Your task to perform on an android device: move a message to another label in the gmail app Image 0: 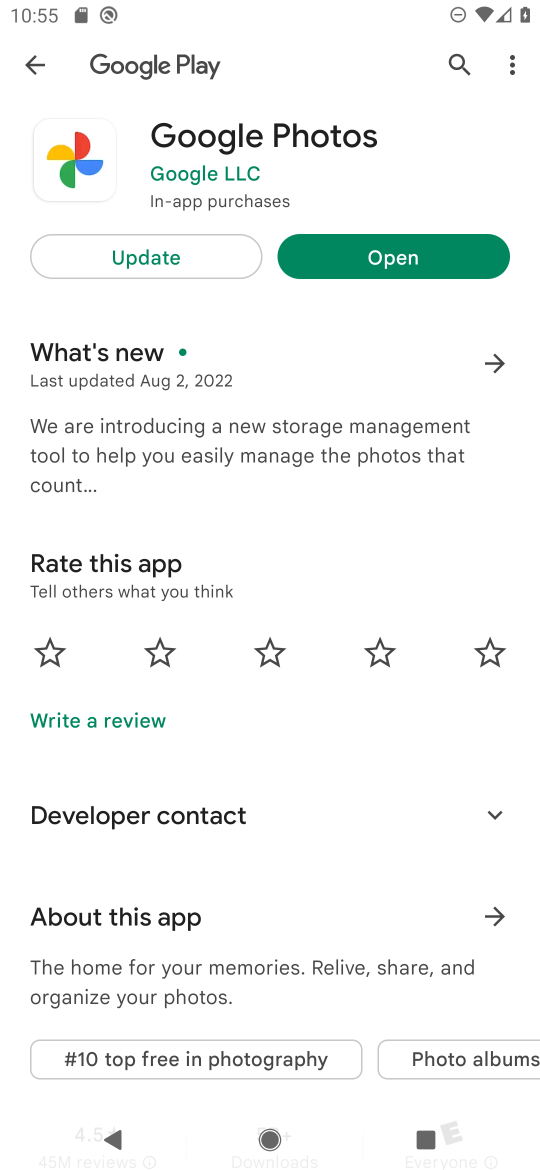
Step 0: press home button
Your task to perform on an android device: move a message to another label in the gmail app Image 1: 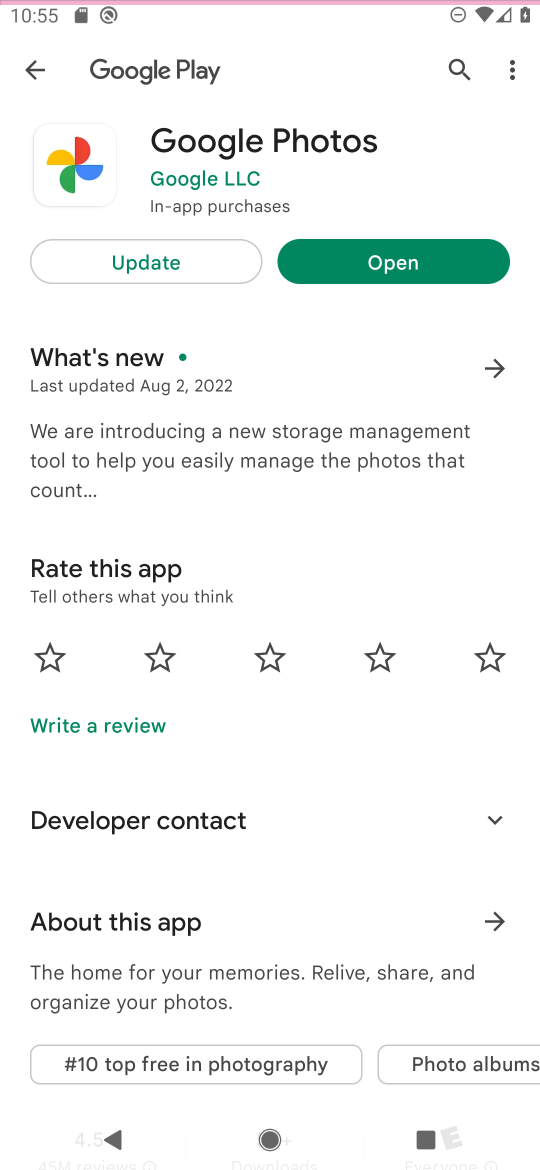
Step 1: press home button
Your task to perform on an android device: move a message to another label in the gmail app Image 2: 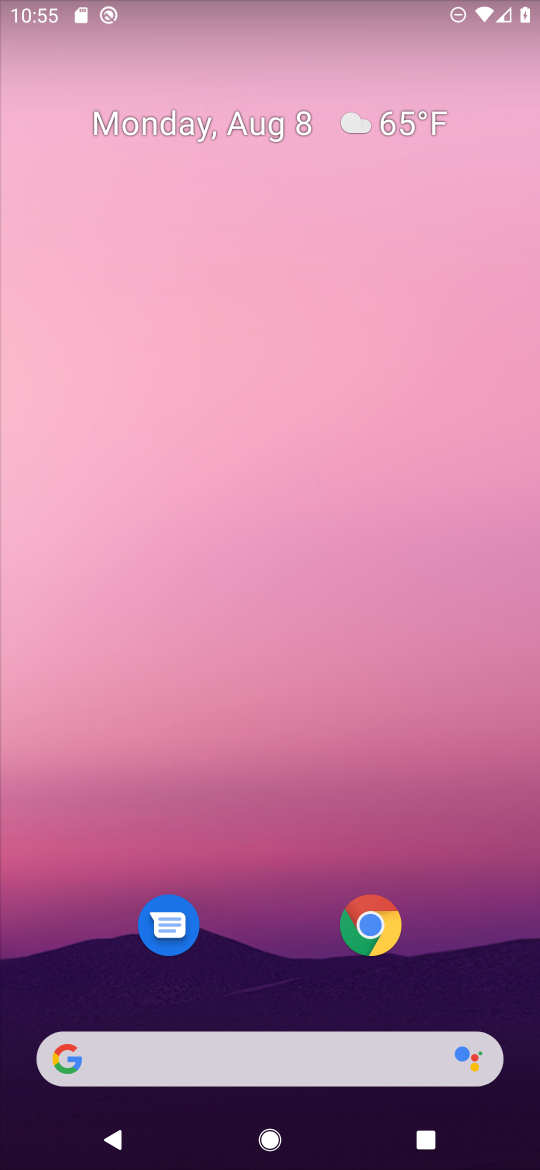
Step 2: drag from (323, 864) to (539, 170)
Your task to perform on an android device: move a message to another label in the gmail app Image 3: 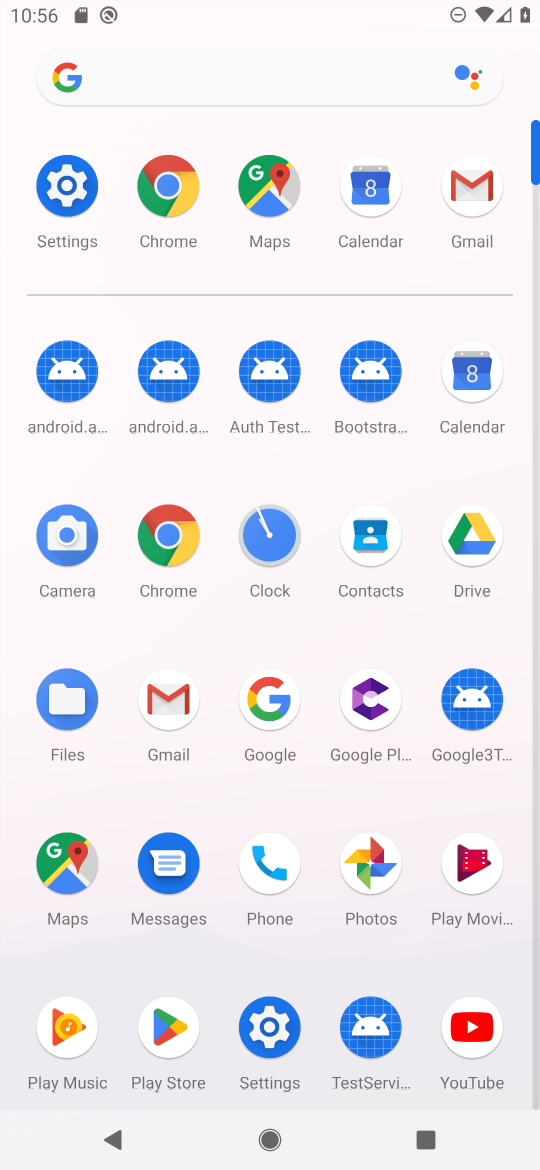
Step 3: click (156, 692)
Your task to perform on an android device: move a message to another label in the gmail app Image 4: 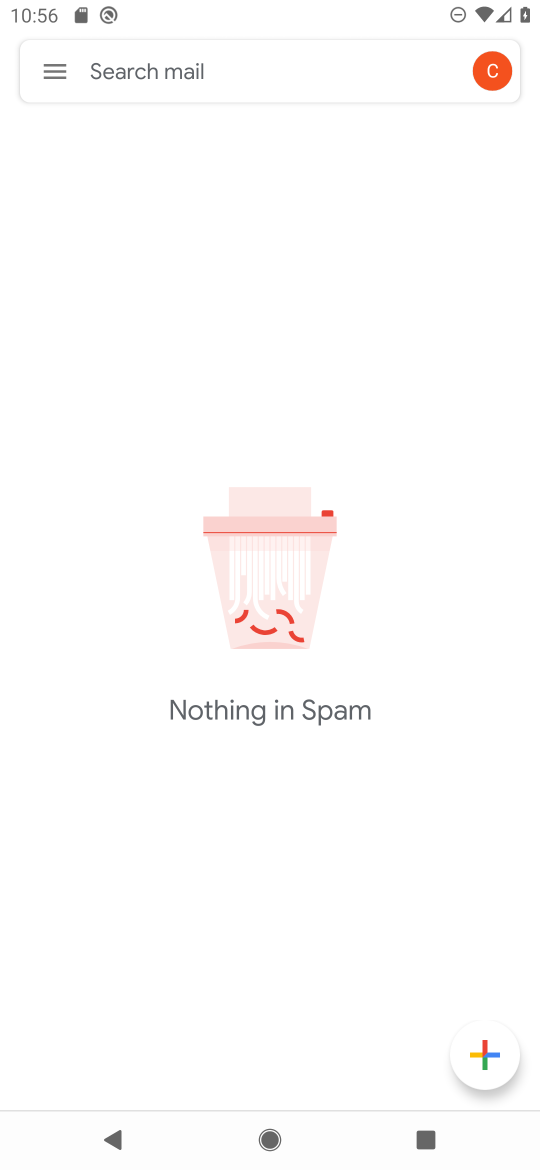
Step 4: click (52, 65)
Your task to perform on an android device: move a message to another label in the gmail app Image 5: 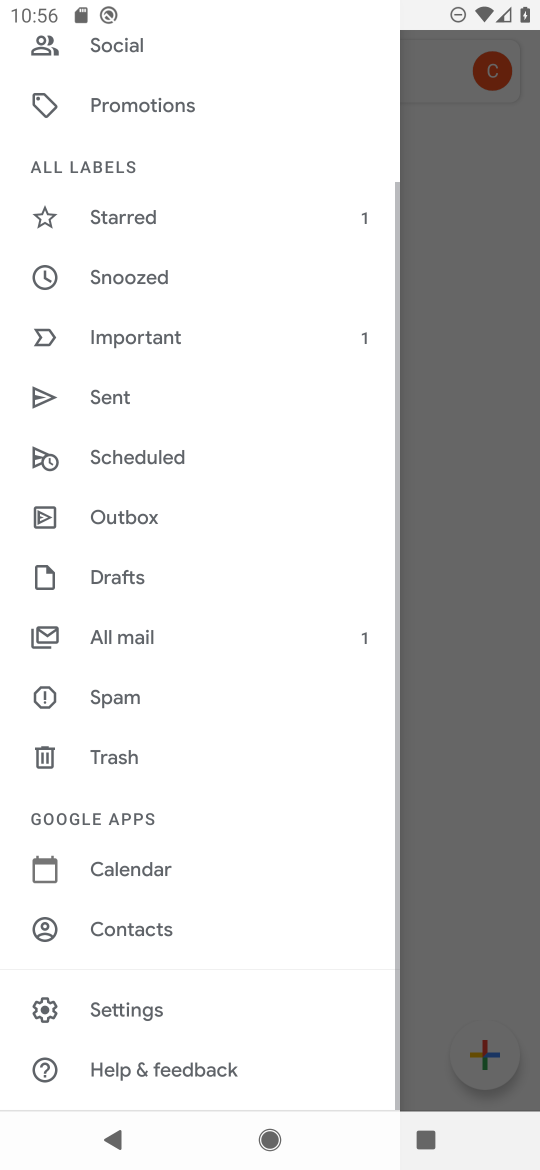
Step 5: drag from (171, 225) to (189, 832)
Your task to perform on an android device: move a message to another label in the gmail app Image 6: 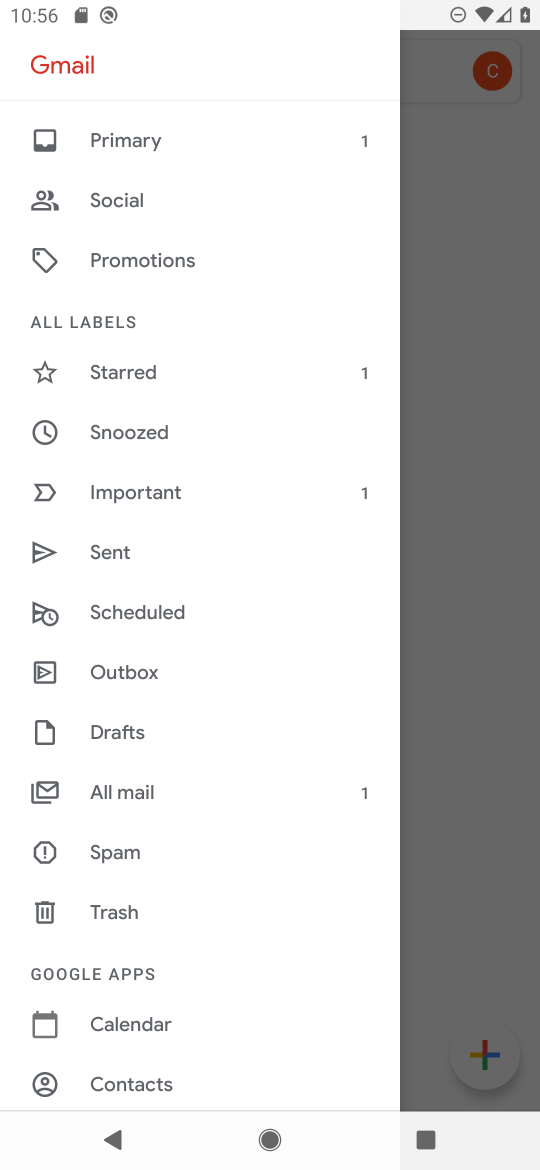
Step 6: click (122, 796)
Your task to perform on an android device: move a message to another label in the gmail app Image 7: 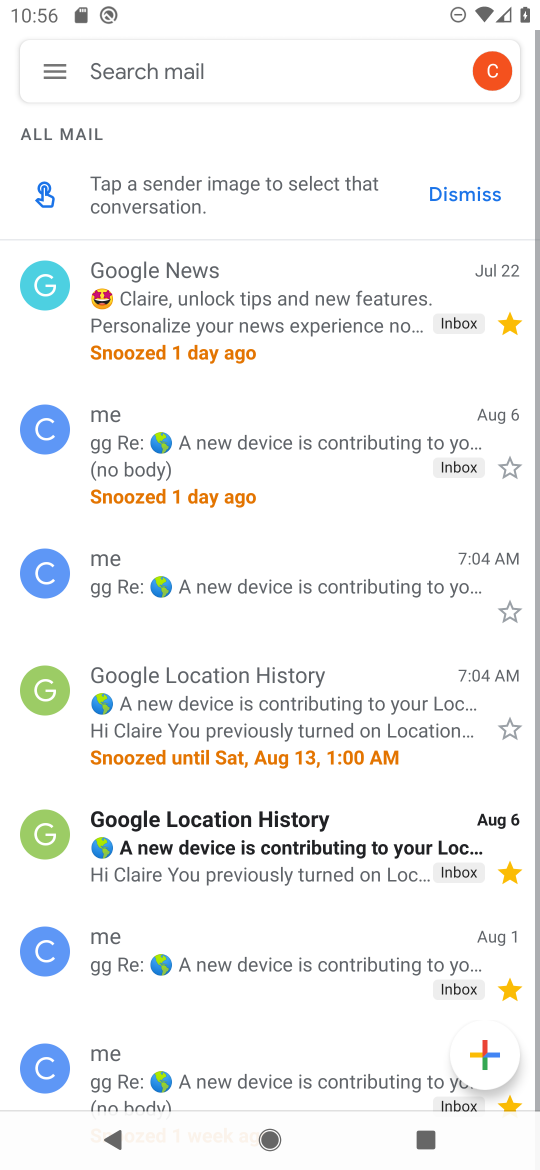
Step 7: click (358, 431)
Your task to perform on an android device: move a message to another label in the gmail app Image 8: 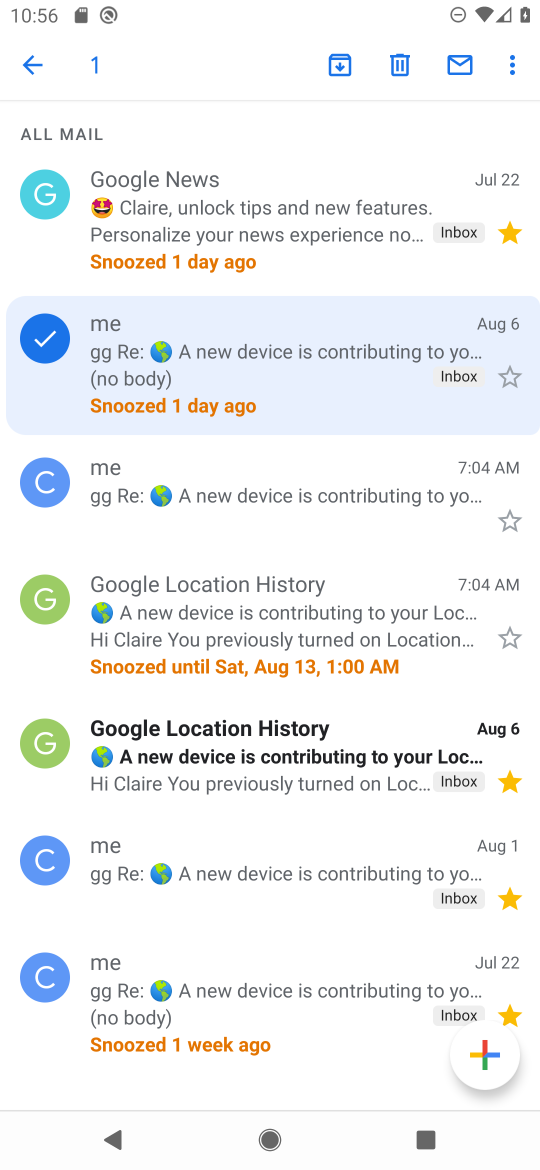
Step 8: click (519, 62)
Your task to perform on an android device: move a message to another label in the gmail app Image 9: 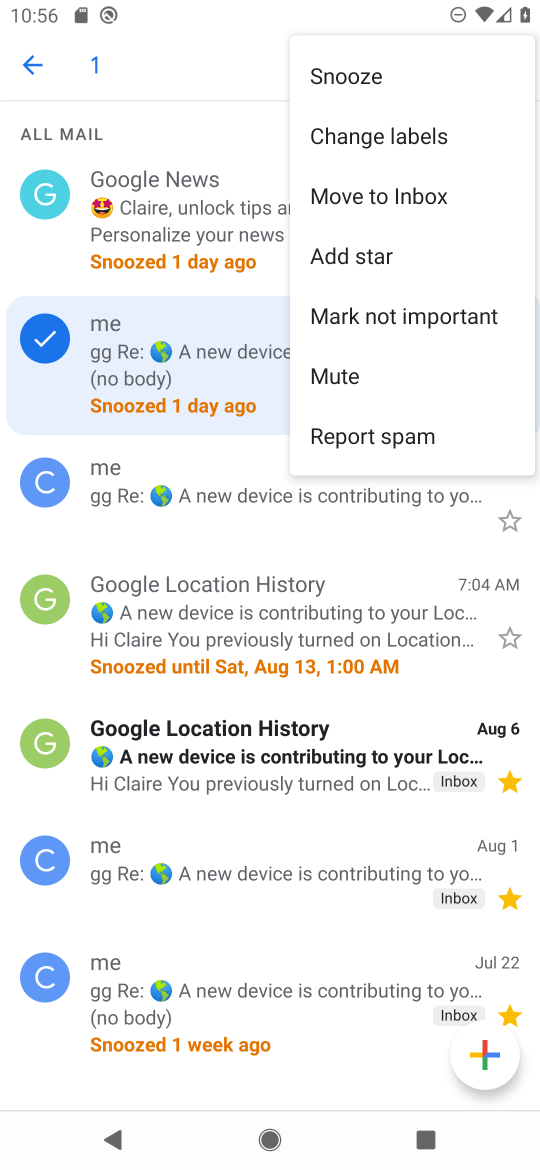
Step 9: click (370, 133)
Your task to perform on an android device: move a message to another label in the gmail app Image 10: 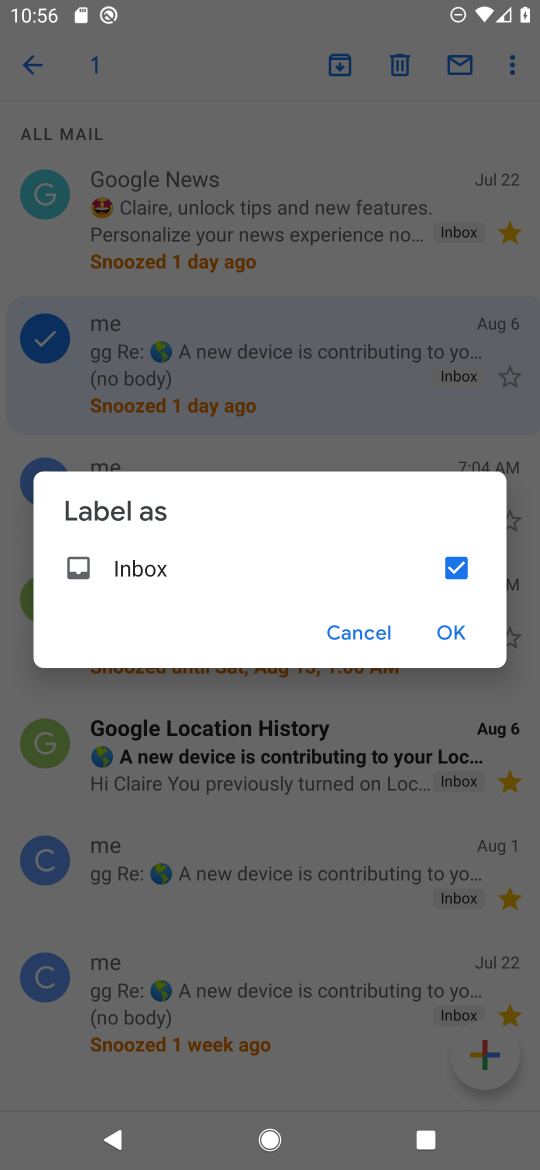
Step 10: click (450, 561)
Your task to perform on an android device: move a message to another label in the gmail app Image 11: 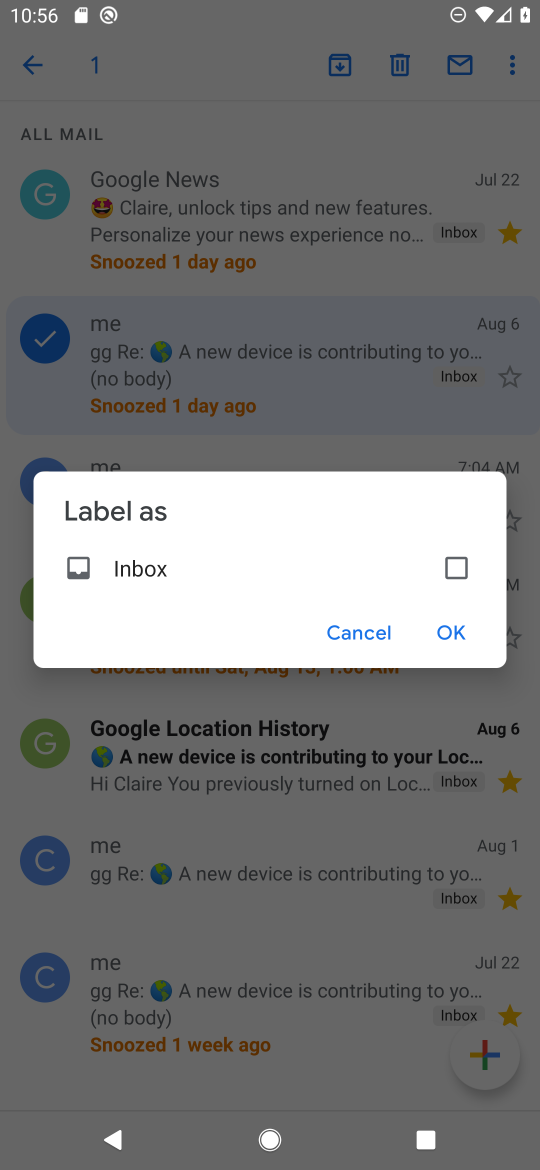
Step 11: click (452, 630)
Your task to perform on an android device: move a message to another label in the gmail app Image 12: 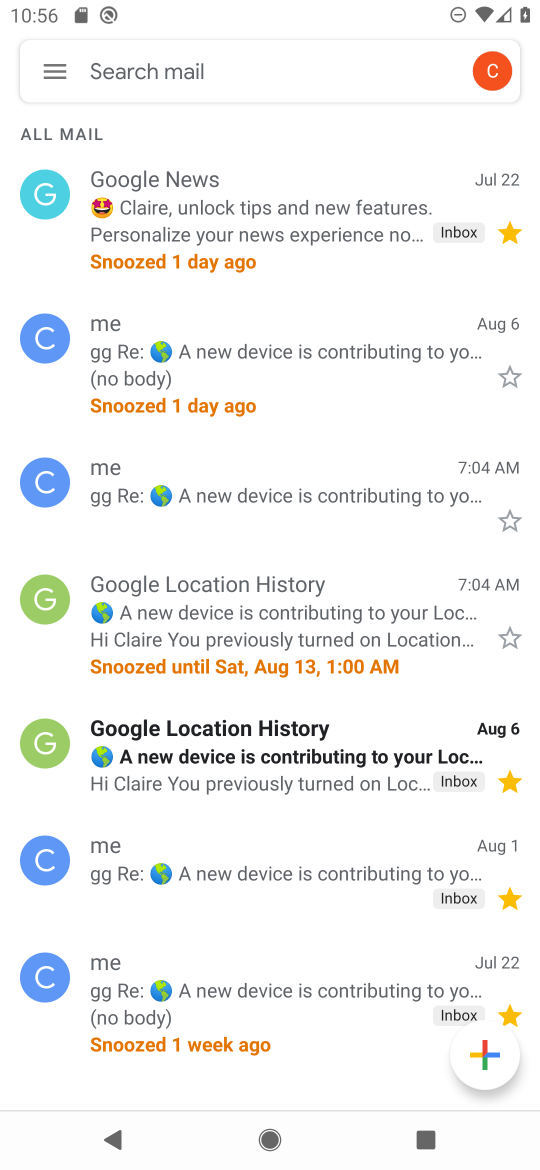
Step 12: task complete